Your task to perform on an android device: Go to CNN.com Image 0: 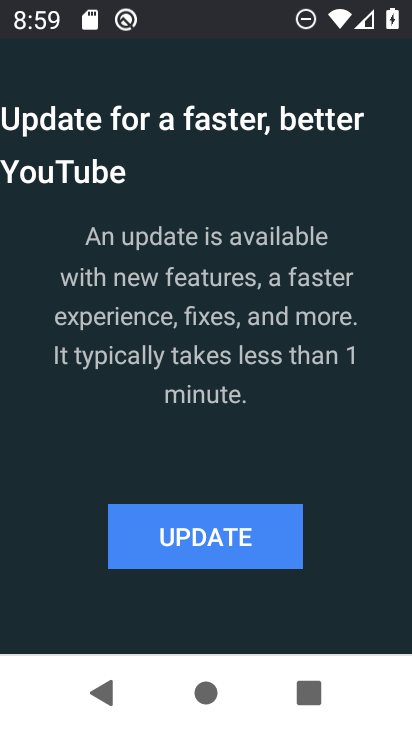
Step 0: press home button
Your task to perform on an android device: Go to CNN.com Image 1: 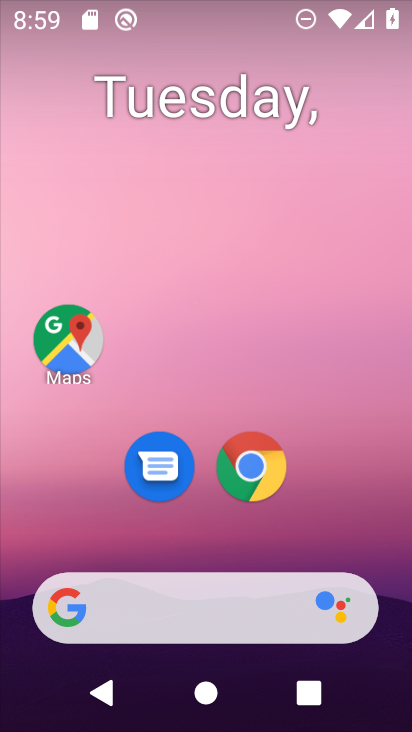
Step 1: click (268, 480)
Your task to perform on an android device: Go to CNN.com Image 2: 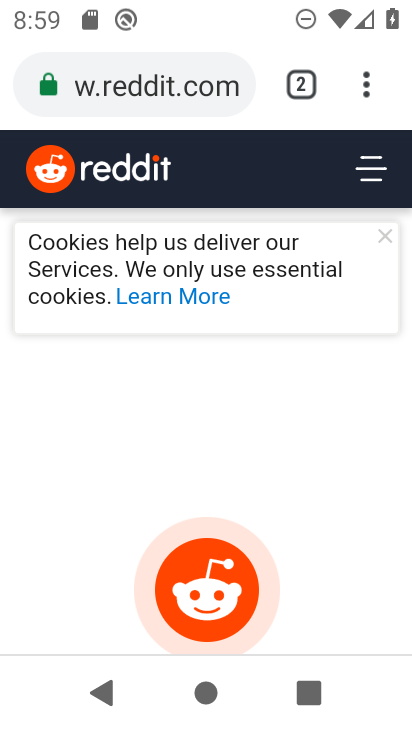
Step 2: click (154, 84)
Your task to perform on an android device: Go to CNN.com Image 3: 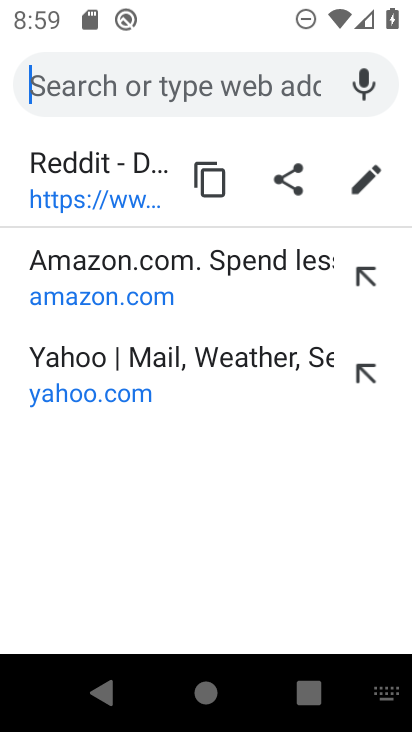
Step 3: type "CNN.com"
Your task to perform on an android device: Go to CNN.com Image 4: 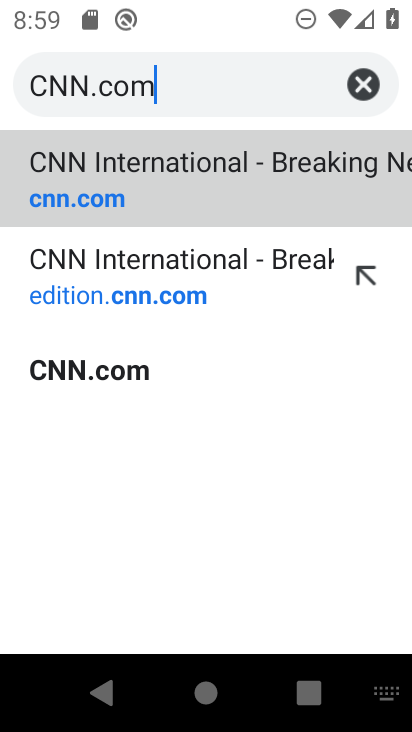
Step 4: click (118, 199)
Your task to perform on an android device: Go to CNN.com Image 5: 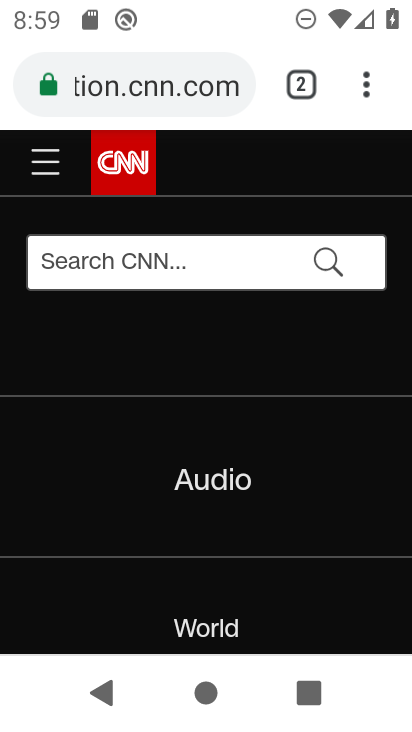
Step 5: task complete